Your task to perform on an android device: set an alarm Image 0: 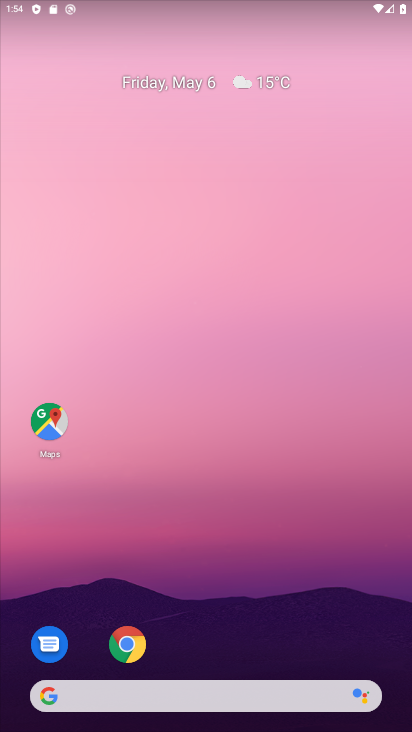
Step 0: drag from (232, 581) to (189, 222)
Your task to perform on an android device: set an alarm Image 1: 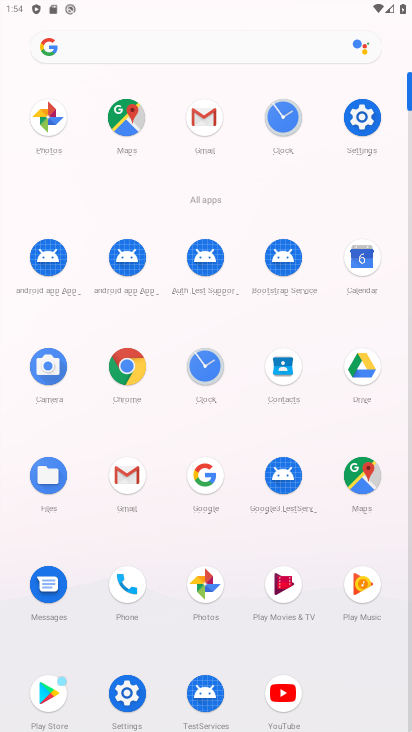
Step 1: click (283, 123)
Your task to perform on an android device: set an alarm Image 2: 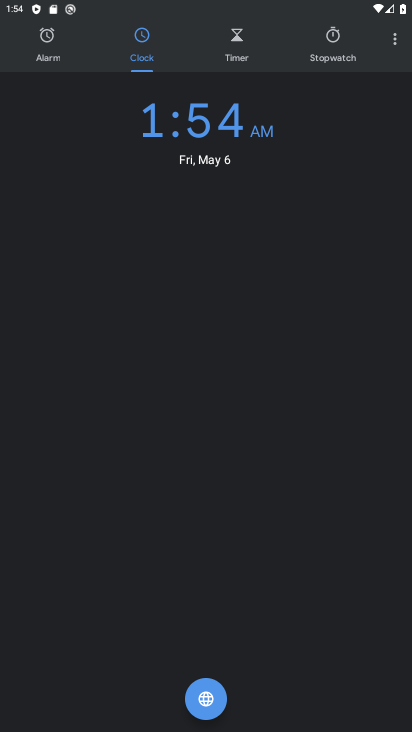
Step 2: click (57, 50)
Your task to perform on an android device: set an alarm Image 3: 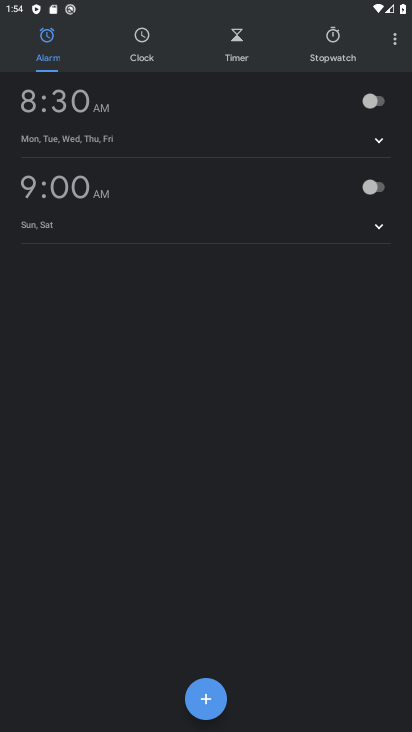
Step 3: click (203, 697)
Your task to perform on an android device: set an alarm Image 4: 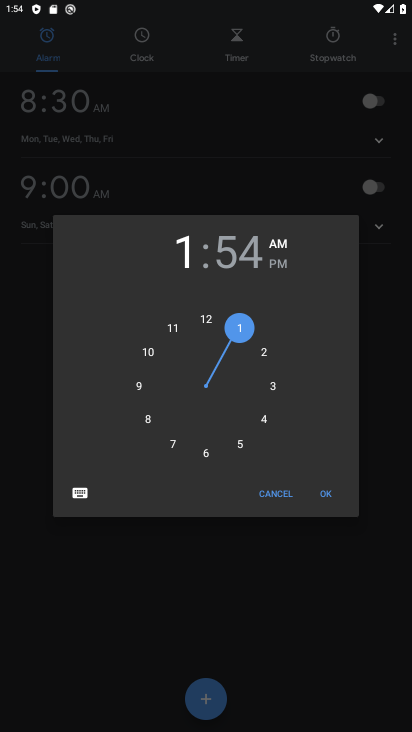
Step 4: click (335, 501)
Your task to perform on an android device: set an alarm Image 5: 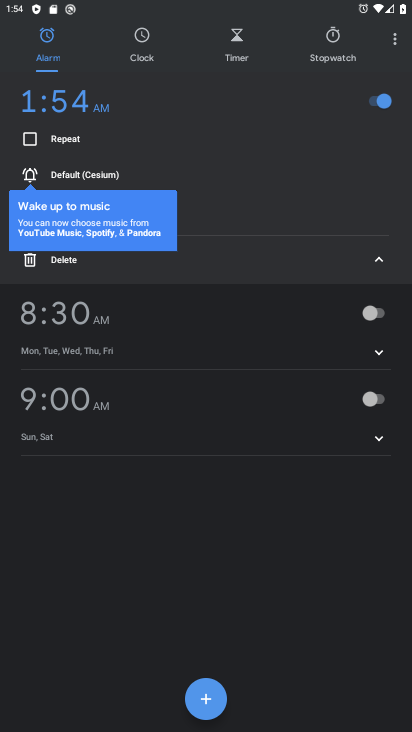
Step 5: task complete